Your task to perform on an android device: turn vacation reply on in the gmail app Image 0: 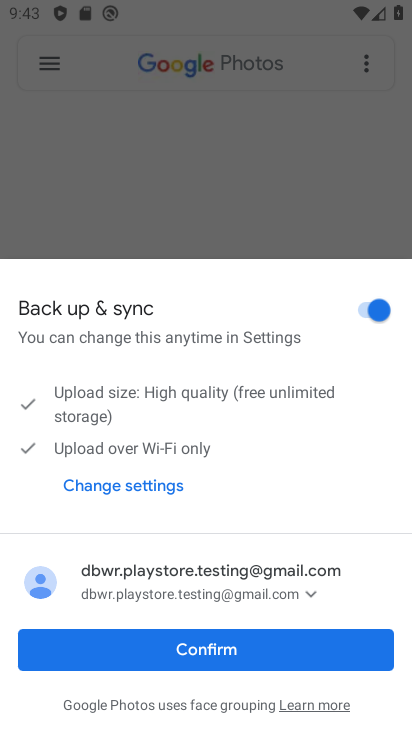
Step 0: press back button
Your task to perform on an android device: turn vacation reply on in the gmail app Image 1: 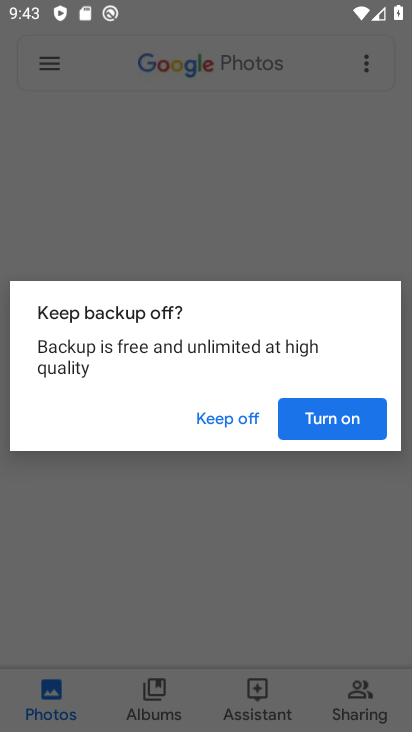
Step 1: press back button
Your task to perform on an android device: turn vacation reply on in the gmail app Image 2: 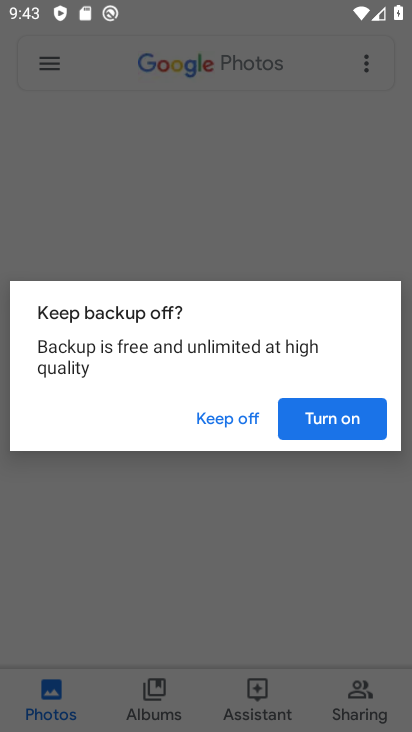
Step 2: press back button
Your task to perform on an android device: turn vacation reply on in the gmail app Image 3: 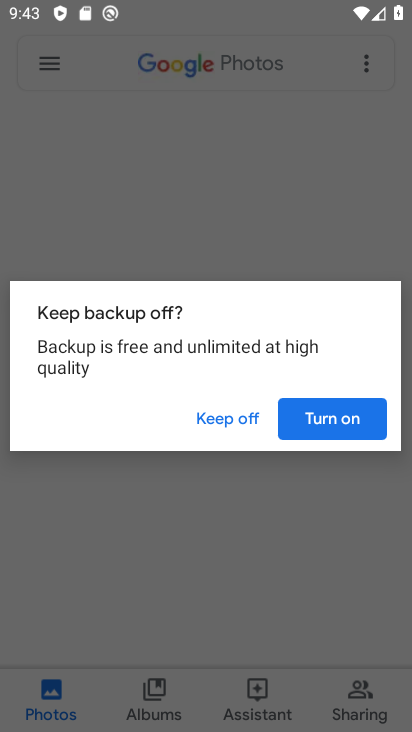
Step 3: press home button
Your task to perform on an android device: turn vacation reply on in the gmail app Image 4: 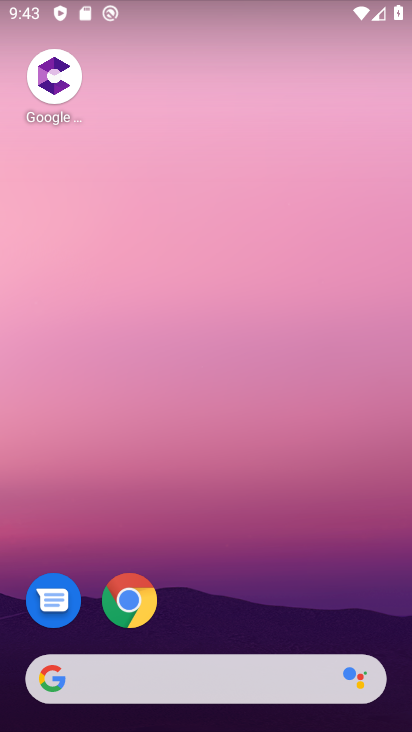
Step 4: drag from (266, 566) to (225, 57)
Your task to perform on an android device: turn vacation reply on in the gmail app Image 5: 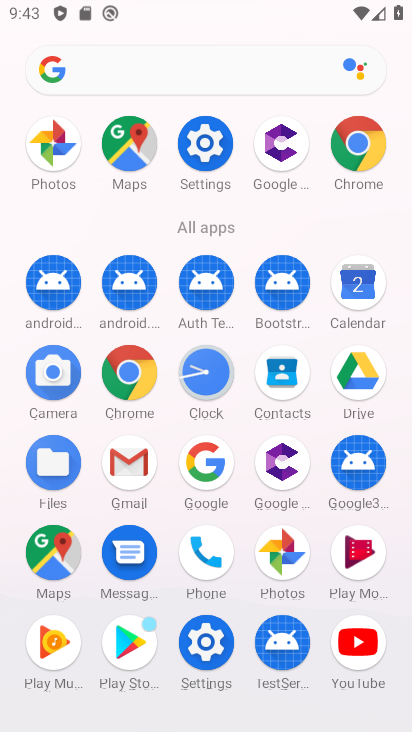
Step 5: drag from (7, 515) to (12, 271)
Your task to perform on an android device: turn vacation reply on in the gmail app Image 6: 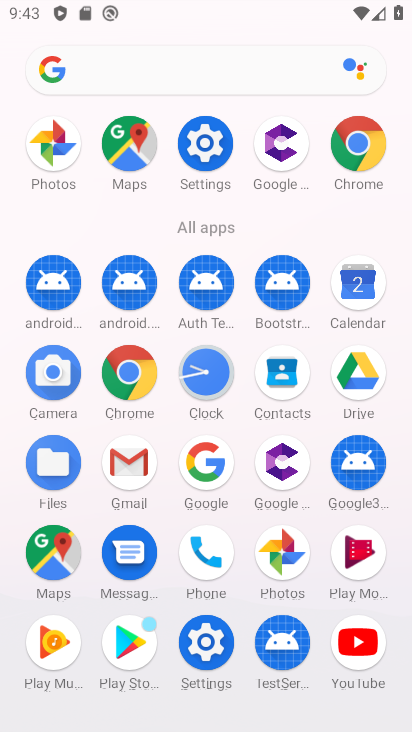
Step 6: click (132, 457)
Your task to perform on an android device: turn vacation reply on in the gmail app Image 7: 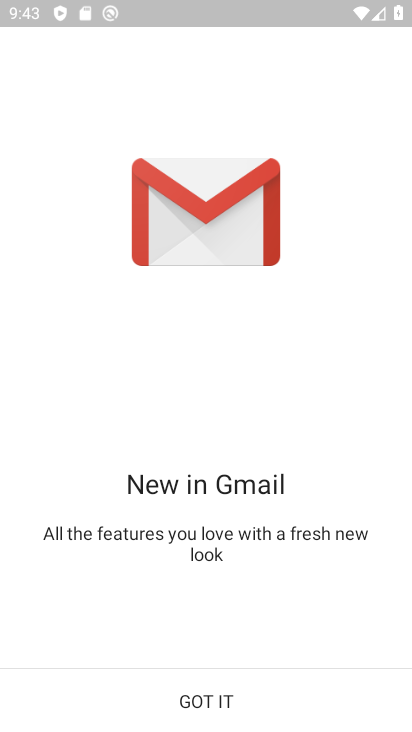
Step 7: click (174, 701)
Your task to perform on an android device: turn vacation reply on in the gmail app Image 8: 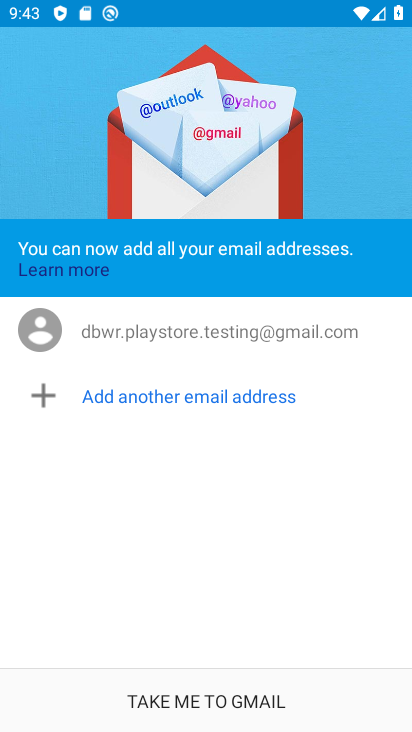
Step 8: click (202, 710)
Your task to perform on an android device: turn vacation reply on in the gmail app Image 9: 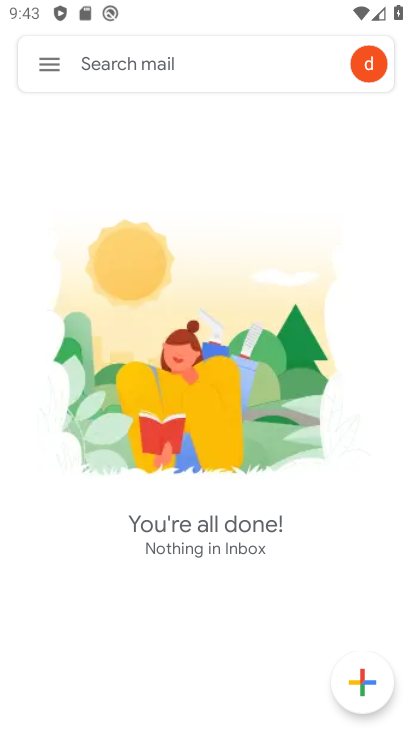
Step 9: click (52, 64)
Your task to perform on an android device: turn vacation reply on in the gmail app Image 10: 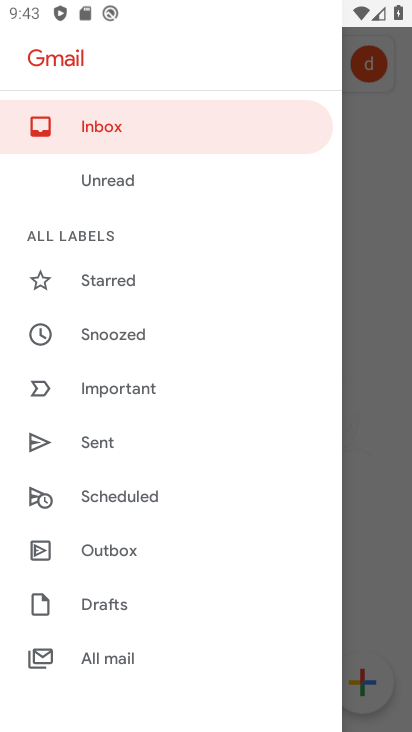
Step 10: drag from (141, 649) to (163, 256)
Your task to perform on an android device: turn vacation reply on in the gmail app Image 11: 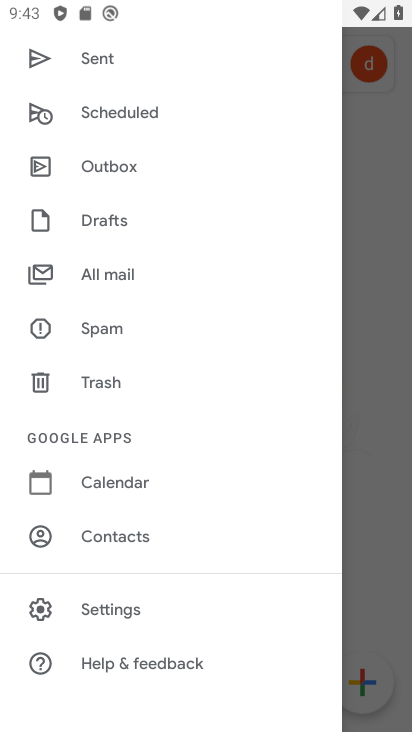
Step 11: click (124, 608)
Your task to perform on an android device: turn vacation reply on in the gmail app Image 12: 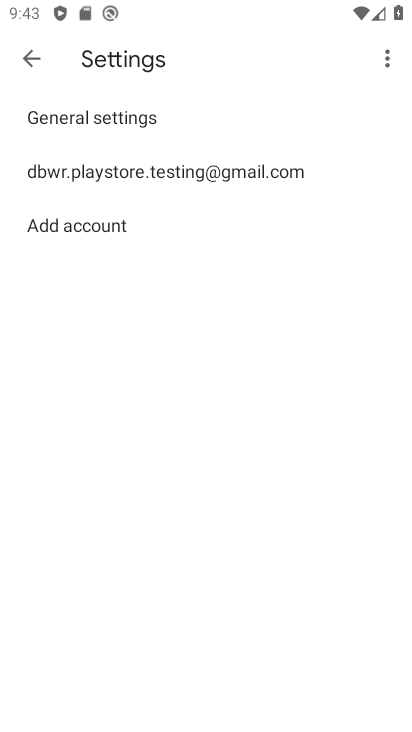
Step 12: click (162, 177)
Your task to perform on an android device: turn vacation reply on in the gmail app Image 13: 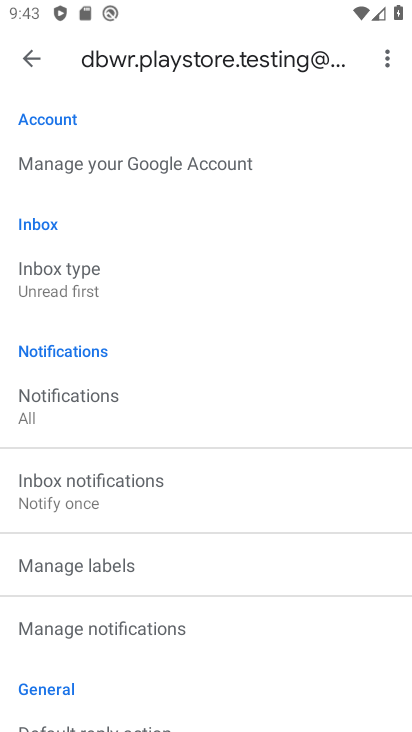
Step 13: drag from (164, 574) to (215, 207)
Your task to perform on an android device: turn vacation reply on in the gmail app Image 14: 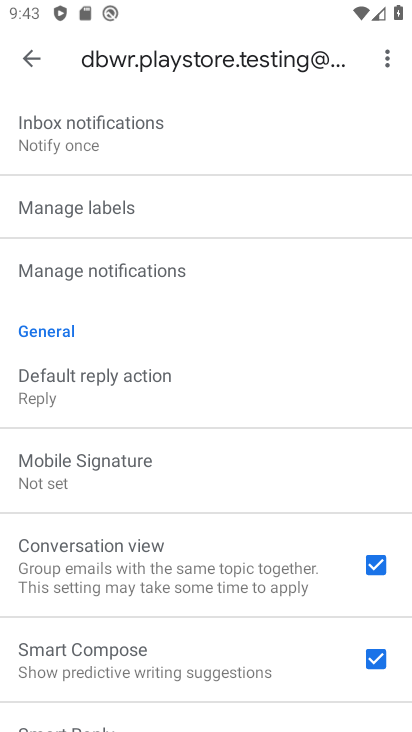
Step 14: drag from (151, 428) to (173, 193)
Your task to perform on an android device: turn vacation reply on in the gmail app Image 15: 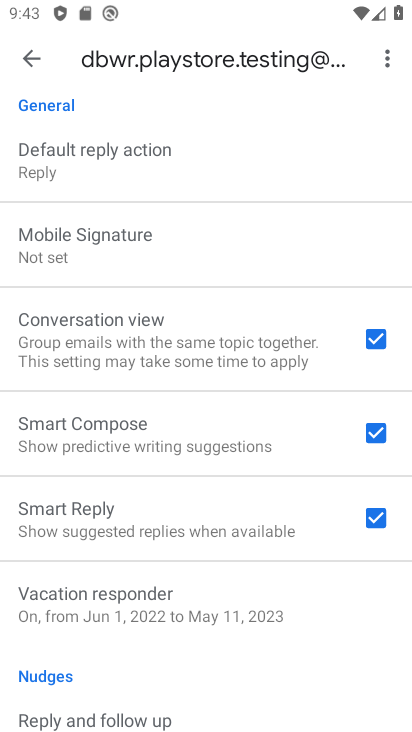
Step 15: drag from (183, 184) to (185, 488)
Your task to perform on an android device: turn vacation reply on in the gmail app Image 16: 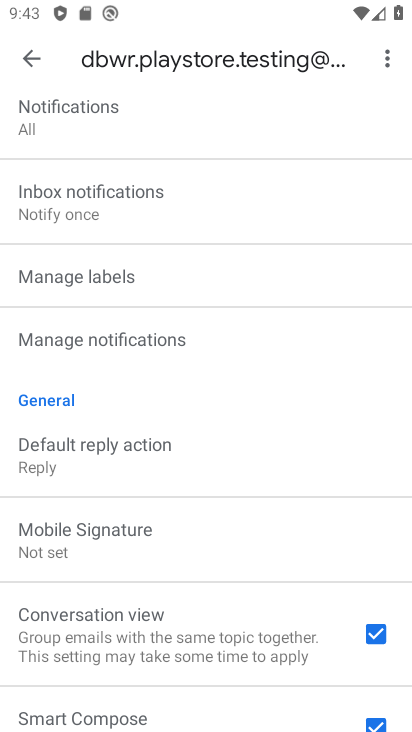
Step 16: click (143, 340)
Your task to perform on an android device: turn vacation reply on in the gmail app Image 17: 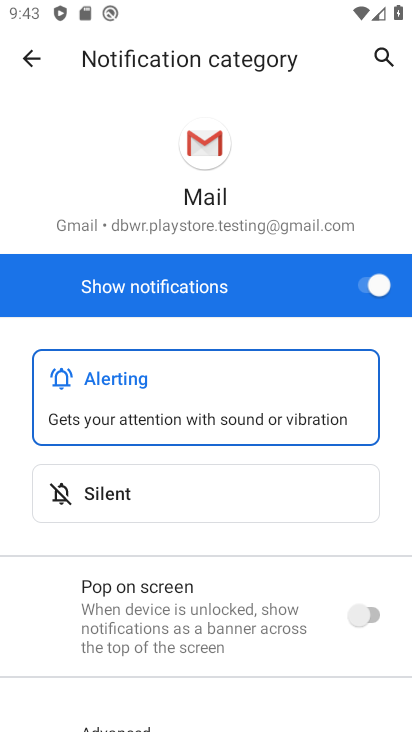
Step 17: drag from (215, 623) to (219, 258)
Your task to perform on an android device: turn vacation reply on in the gmail app Image 18: 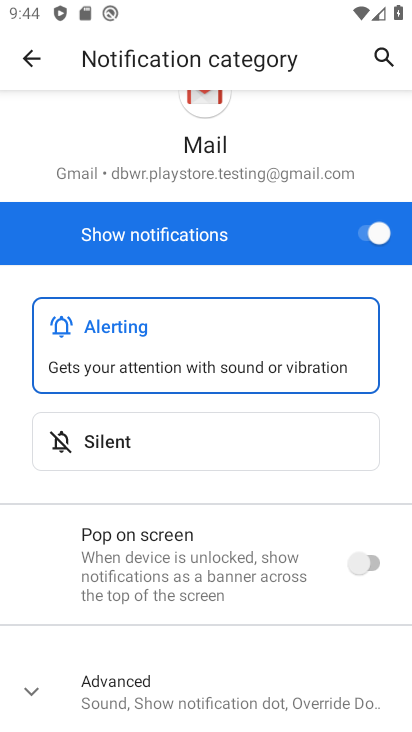
Step 18: click (20, 60)
Your task to perform on an android device: turn vacation reply on in the gmail app Image 19: 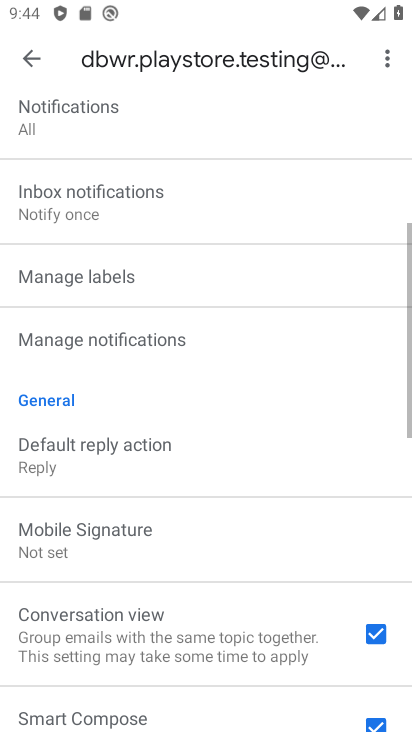
Step 19: drag from (191, 559) to (191, 196)
Your task to perform on an android device: turn vacation reply on in the gmail app Image 20: 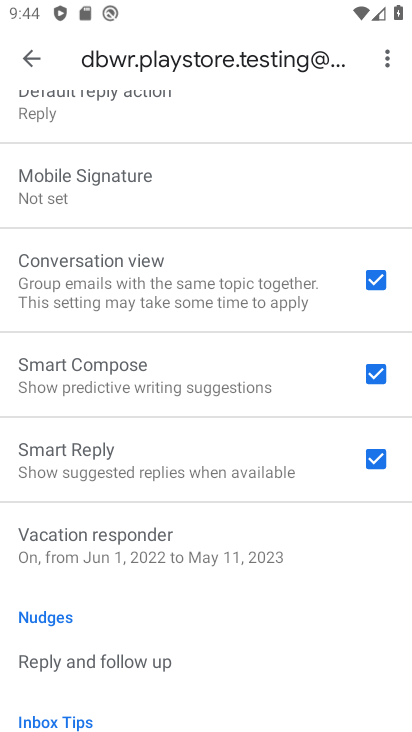
Step 20: click (182, 545)
Your task to perform on an android device: turn vacation reply on in the gmail app Image 21: 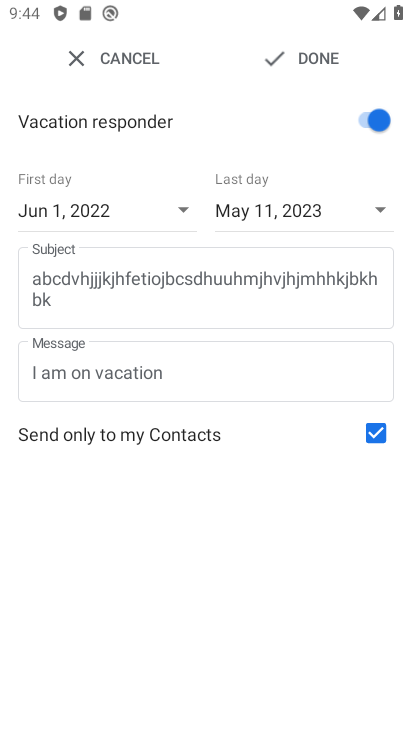
Step 21: click (284, 59)
Your task to perform on an android device: turn vacation reply on in the gmail app Image 22: 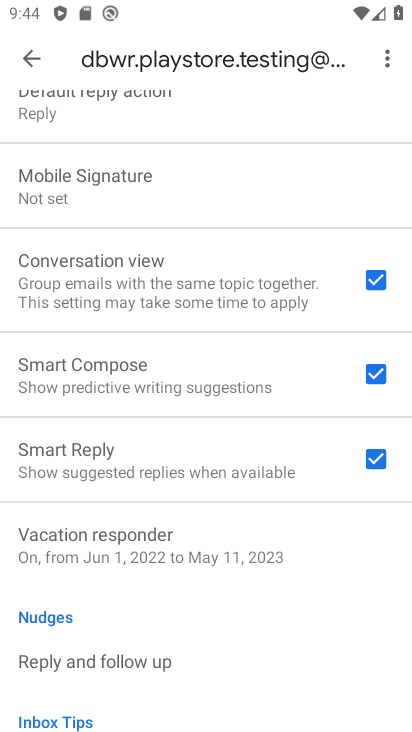
Step 22: task complete